Your task to perform on an android device: Go to display settings Image 0: 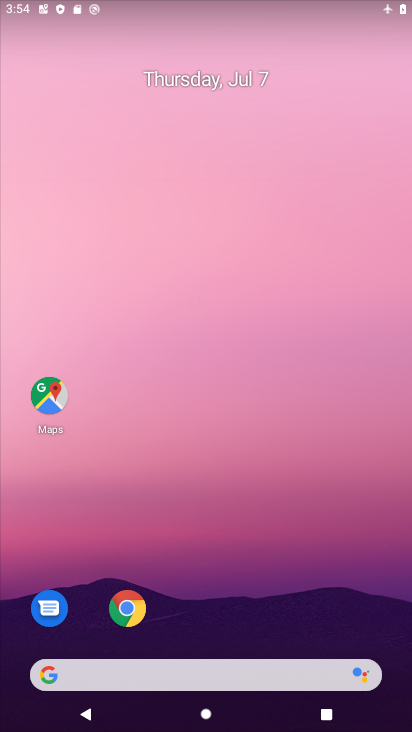
Step 0: drag from (357, 548) to (235, 138)
Your task to perform on an android device: Go to display settings Image 1: 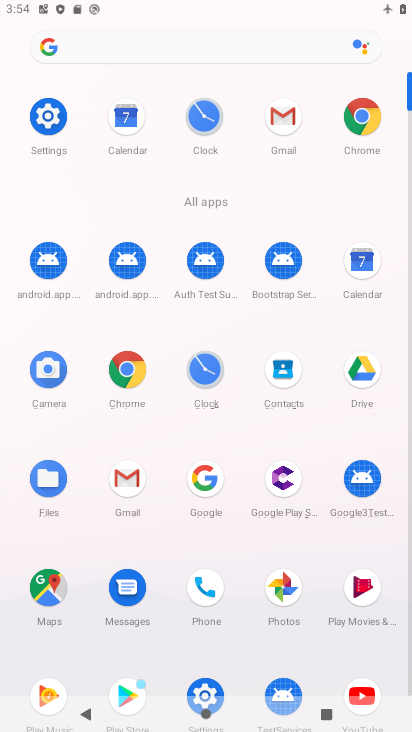
Step 1: click (40, 117)
Your task to perform on an android device: Go to display settings Image 2: 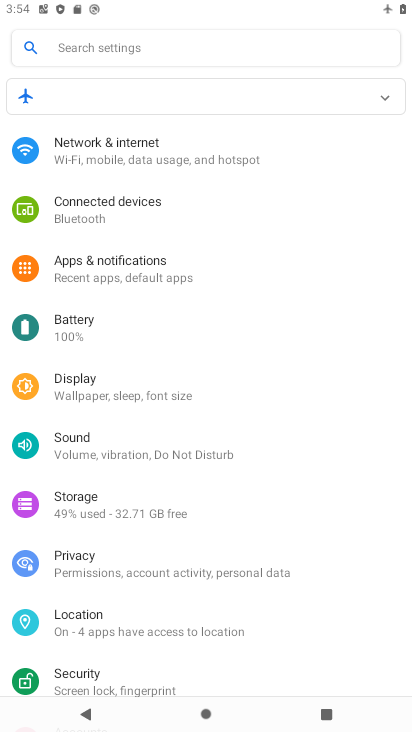
Step 2: click (129, 385)
Your task to perform on an android device: Go to display settings Image 3: 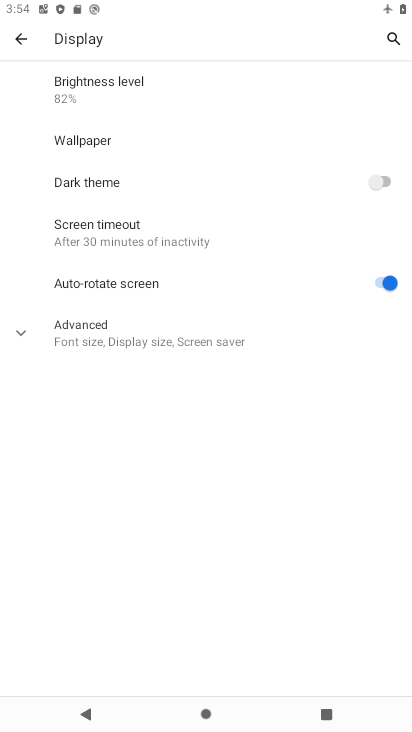
Step 3: task complete